Your task to perform on an android device: What's the weather going to be this weekend? Image 0: 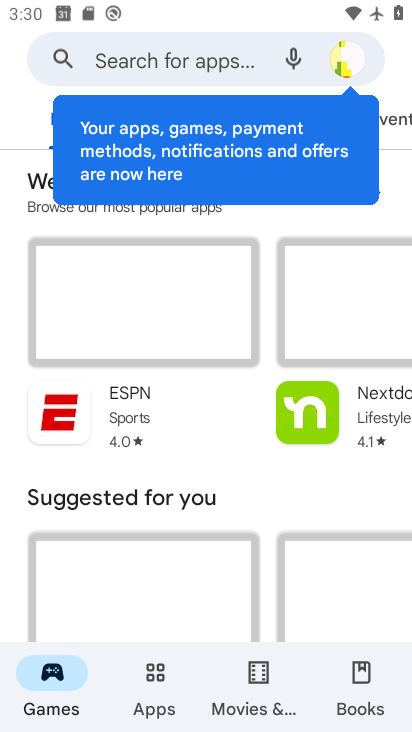
Step 0: press home button
Your task to perform on an android device: What's the weather going to be this weekend? Image 1: 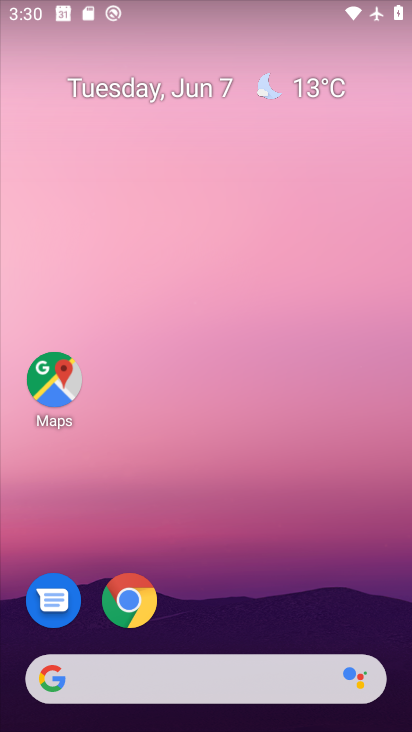
Step 1: click (328, 89)
Your task to perform on an android device: What's the weather going to be this weekend? Image 2: 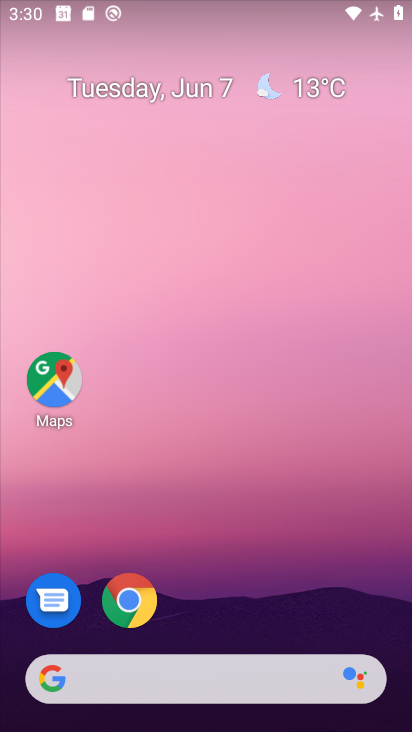
Step 2: click (319, 86)
Your task to perform on an android device: What's the weather going to be this weekend? Image 3: 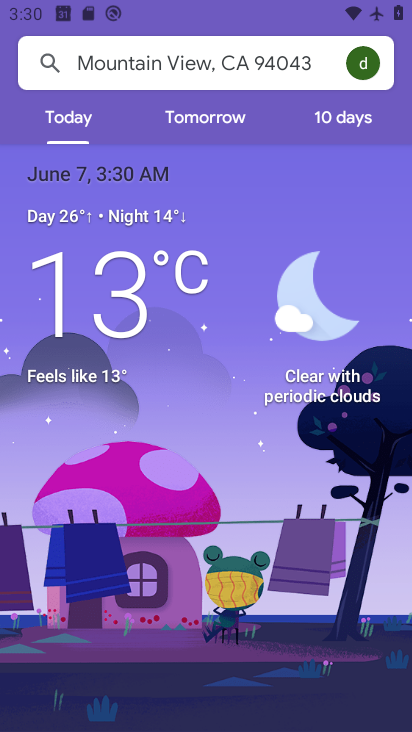
Step 3: click (318, 130)
Your task to perform on an android device: What's the weather going to be this weekend? Image 4: 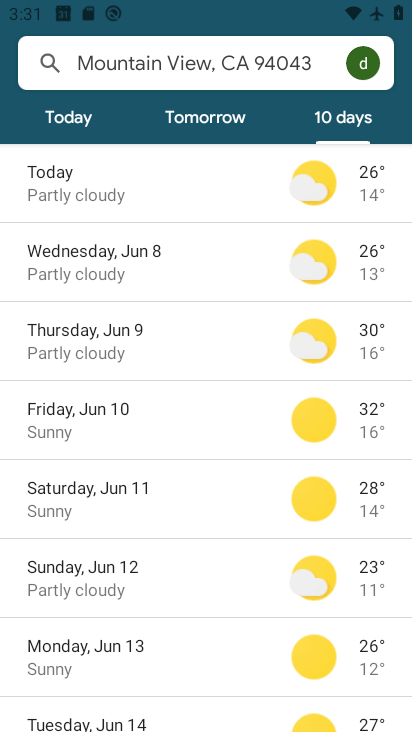
Step 4: task complete